Your task to perform on an android device: Open the Play Movies app and select the watchlist tab. Image 0: 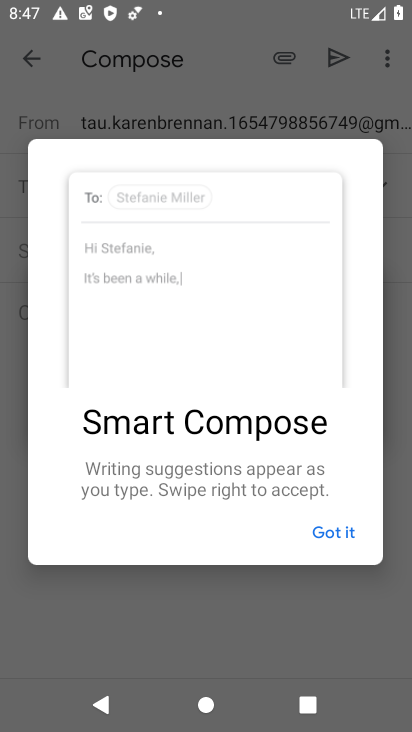
Step 0: press home button
Your task to perform on an android device: Open the Play Movies app and select the watchlist tab. Image 1: 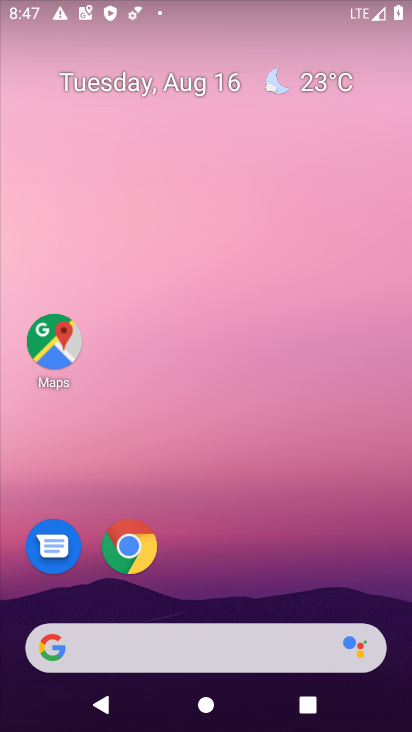
Step 1: drag from (266, 534) to (239, 10)
Your task to perform on an android device: Open the Play Movies app and select the watchlist tab. Image 2: 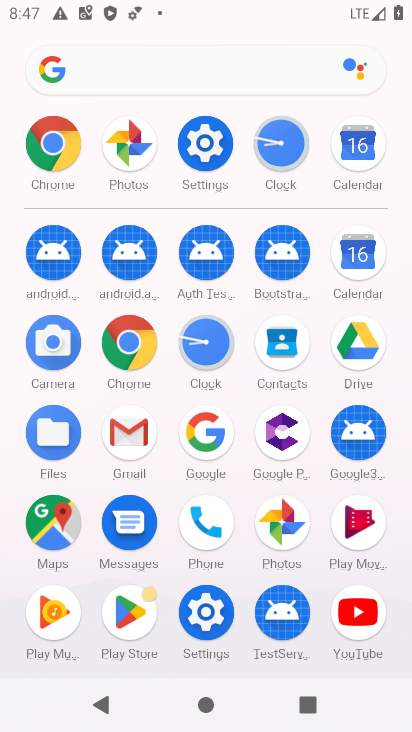
Step 2: click (358, 529)
Your task to perform on an android device: Open the Play Movies app and select the watchlist tab. Image 3: 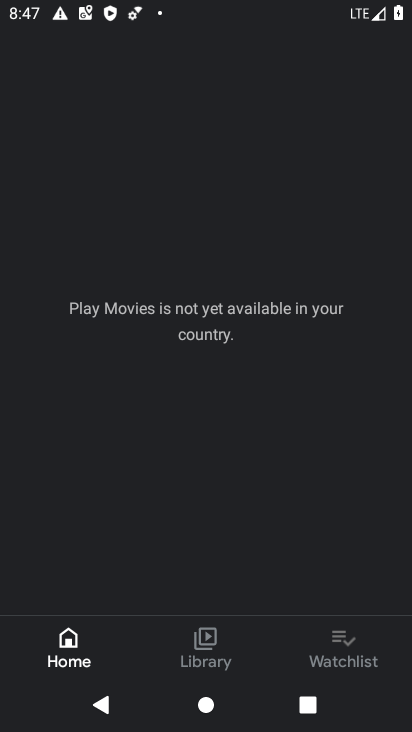
Step 3: click (339, 640)
Your task to perform on an android device: Open the Play Movies app and select the watchlist tab. Image 4: 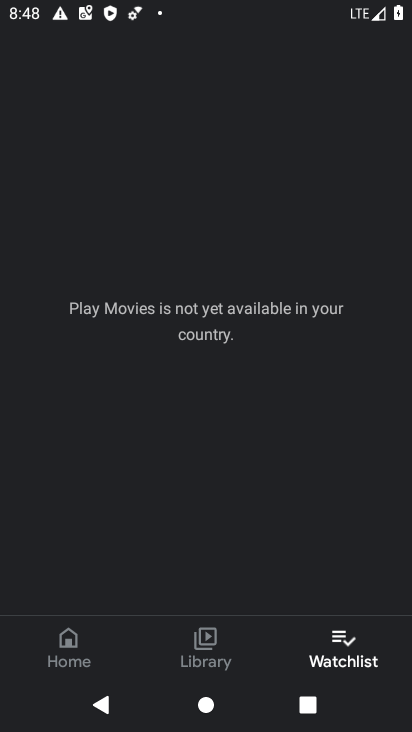
Step 4: task complete